Your task to perform on an android device: toggle wifi Image 0: 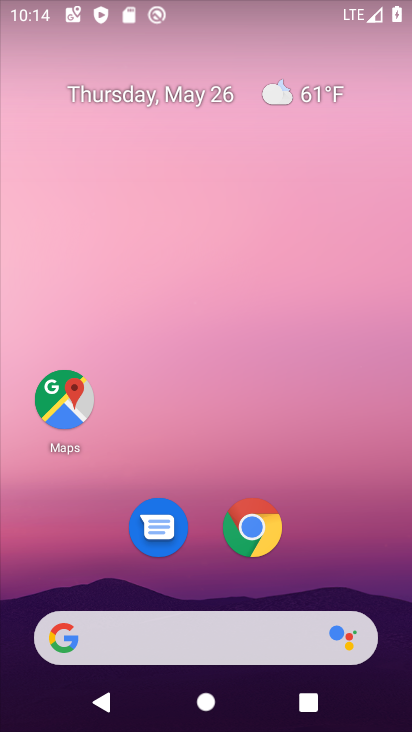
Step 0: drag from (142, 16) to (161, 523)
Your task to perform on an android device: toggle wifi Image 1: 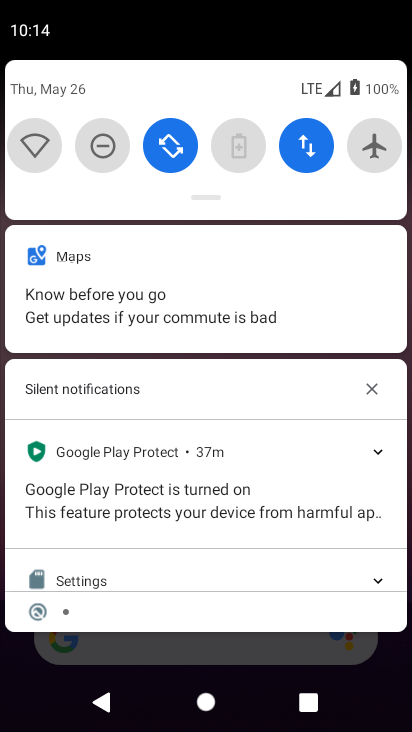
Step 1: click (33, 143)
Your task to perform on an android device: toggle wifi Image 2: 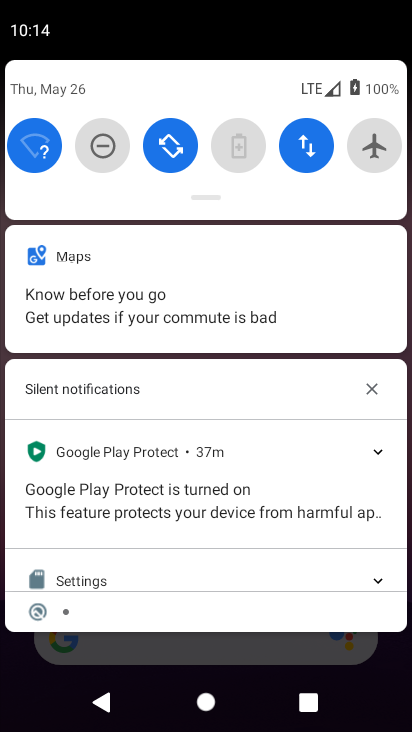
Step 2: task complete